Your task to perform on an android device: Search for Mexican restaurants on Maps Image 0: 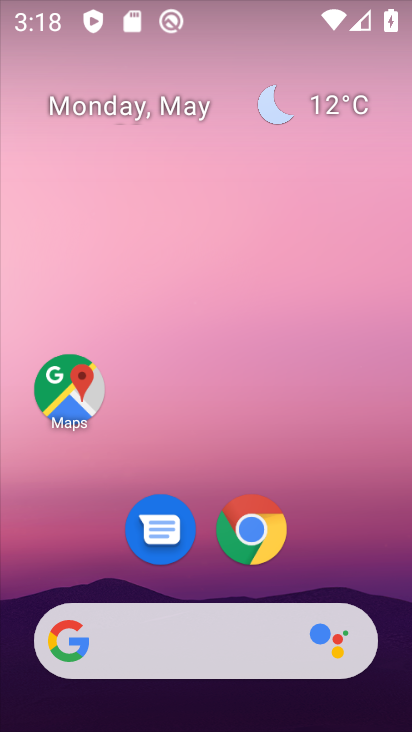
Step 0: click (77, 405)
Your task to perform on an android device: Search for Mexican restaurants on Maps Image 1: 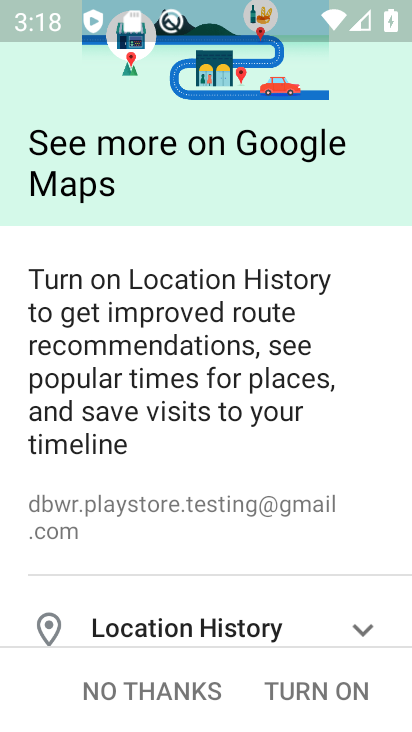
Step 1: click (156, 692)
Your task to perform on an android device: Search for Mexican restaurants on Maps Image 2: 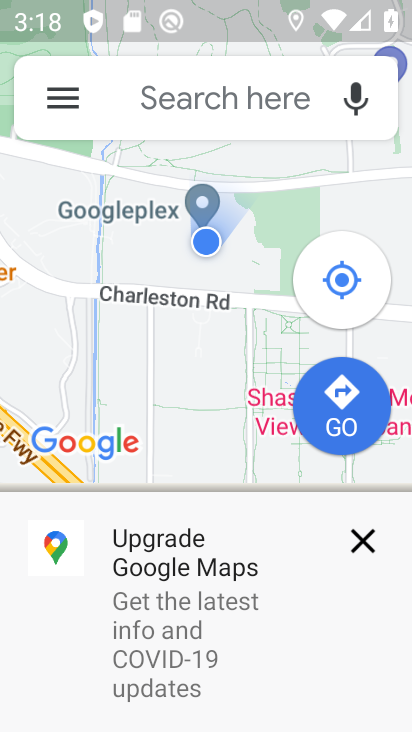
Step 2: click (364, 536)
Your task to perform on an android device: Search for Mexican restaurants on Maps Image 3: 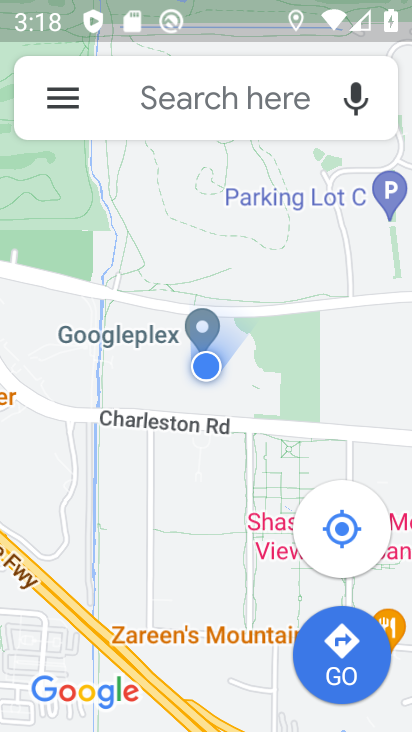
Step 3: click (262, 84)
Your task to perform on an android device: Search for Mexican restaurants on Maps Image 4: 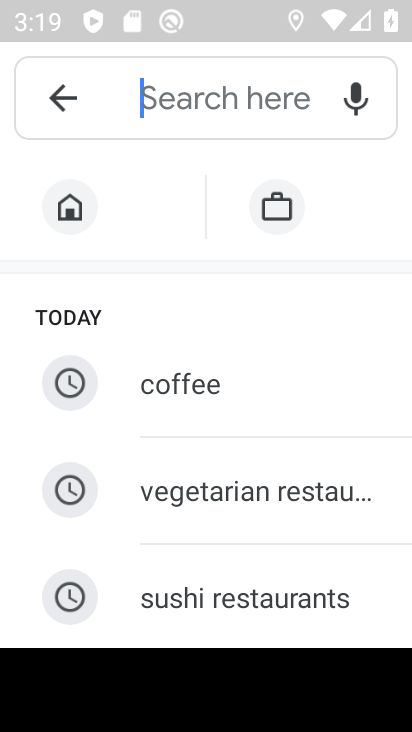
Step 4: type "Mexican restaurants"
Your task to perform on an android device: Search for Mexican restaurants on Maps Image 5: 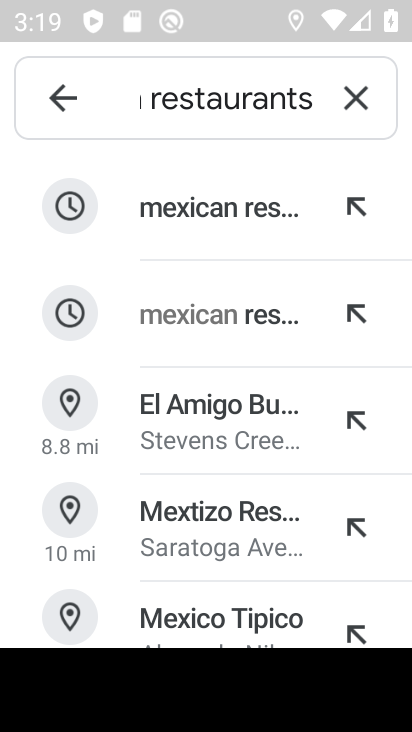
Step 5: press enter
Your task to perform on an android device: Search for Mexican restaurants on Maps Image 6: 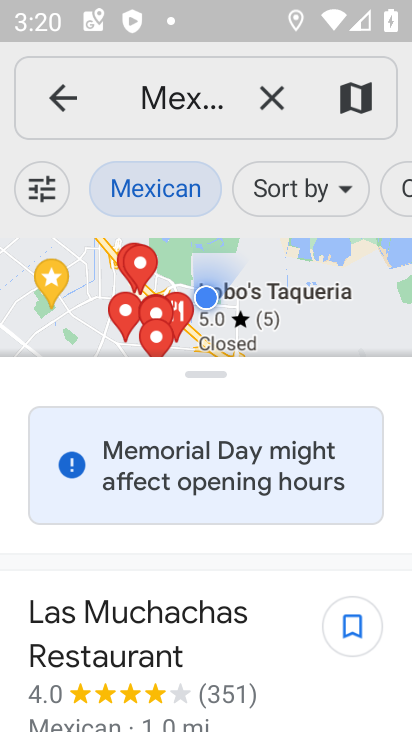
Step 6: task complete